Your task to perform on an android device: clear all cookies in the chrome app Image 0: 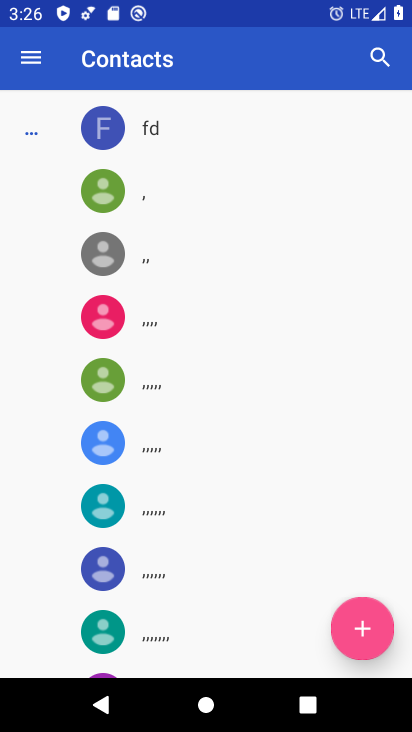
Step 0: press back button
Your task to perform on an android device: clear all cookies in the chrome app Image 1: 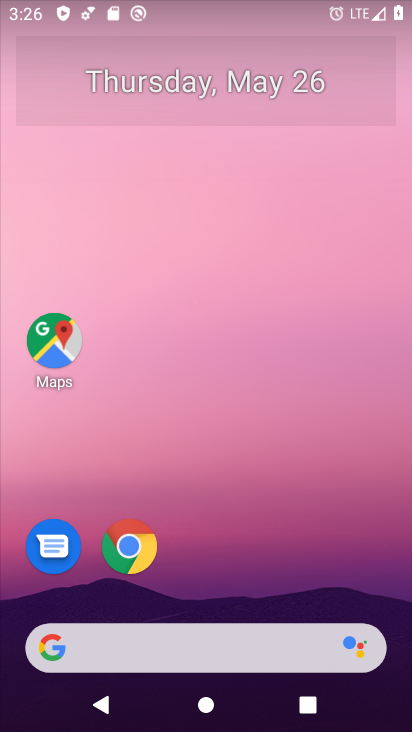
Step 1: click (131, 548)
Your task to perform on an android device: clear all cookies in the chrome app Image 2: 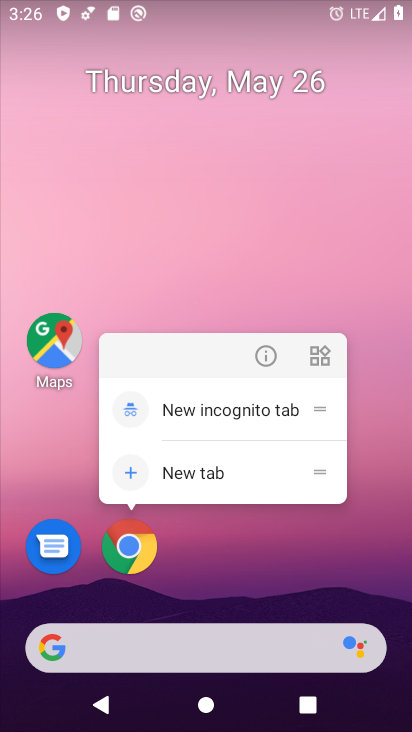
Step 2: click (139, 548)
Your task to perform on an android device: clear all cookies in the chrome app Image 3: 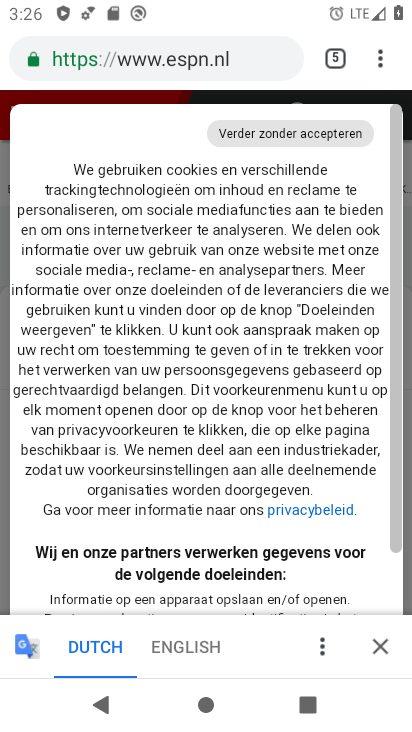
Step 3: drag from (372, 50) to (210, 579)
Your task to perform on an android device: clear all cookies in the chrome app Image 4: 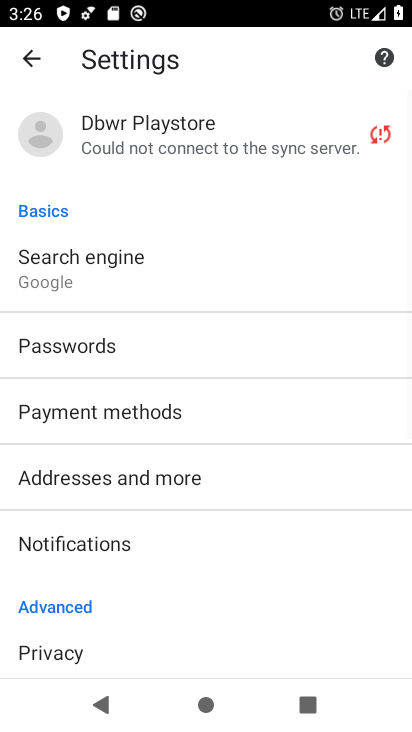
Step 4: click (24, 51)
Your task to perform on an android device: clear all cookies in the chrome app Image 5: 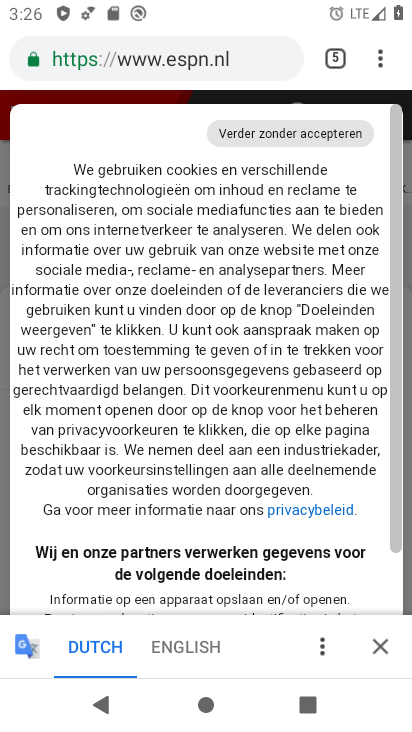
Step 5: drag from (377, 55) to (182, 326)
Your task to perform on an android device: clear all cookies in the chrome app Image 6: 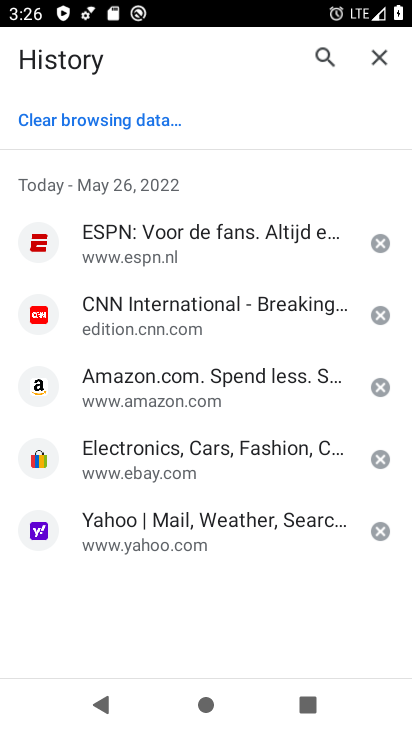
Step 6: click (94, 115)
Your task to perform on an android device: clear all cookies in the chrome app Image 7: 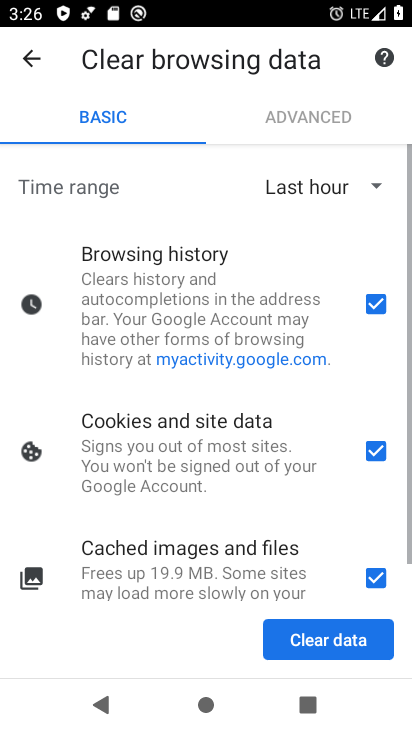
Step 7: click (371, 575)
Your task to perform on an android device: clear all cookies in the chrome app Image 8: 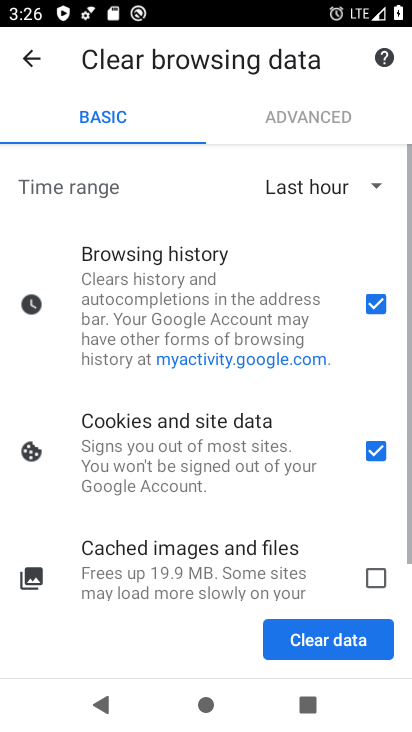
Step 8: click (367, 304)
Your task to perform on an android device: clear all cookies in the chrome app Image 9: 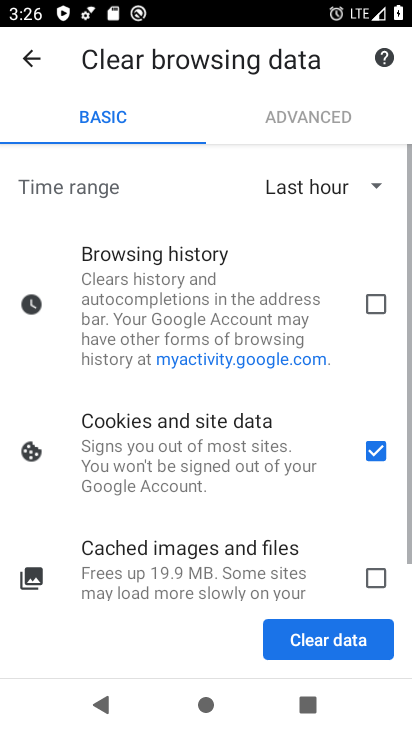
Step 9: click (306, 637)
Your task to perform on an android device: clear all cookies in the chrome app Image 10: 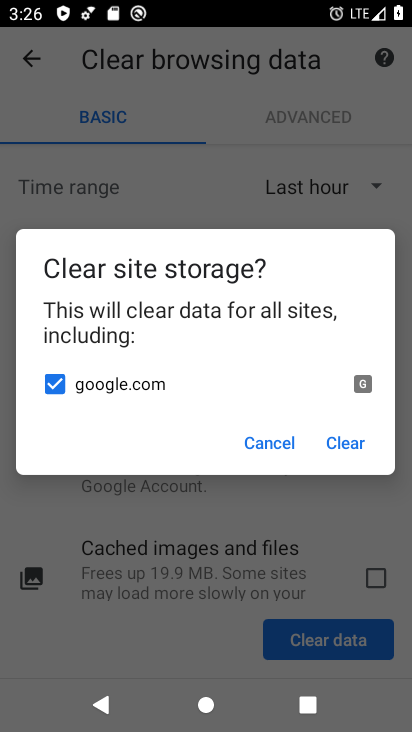
Step 10: click (345, 448)
Your task to perform on an android device: clear all cookies in the chrome app Image 11: 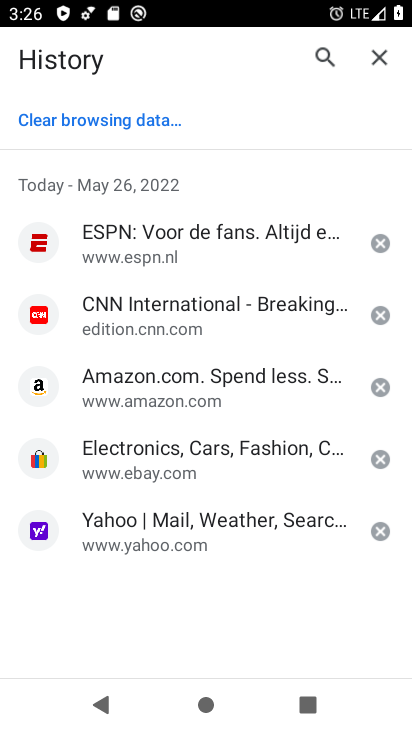
Step 11: task complete